Your task to perform on an android device: What's the weather going to be tomorrow? Image 0: 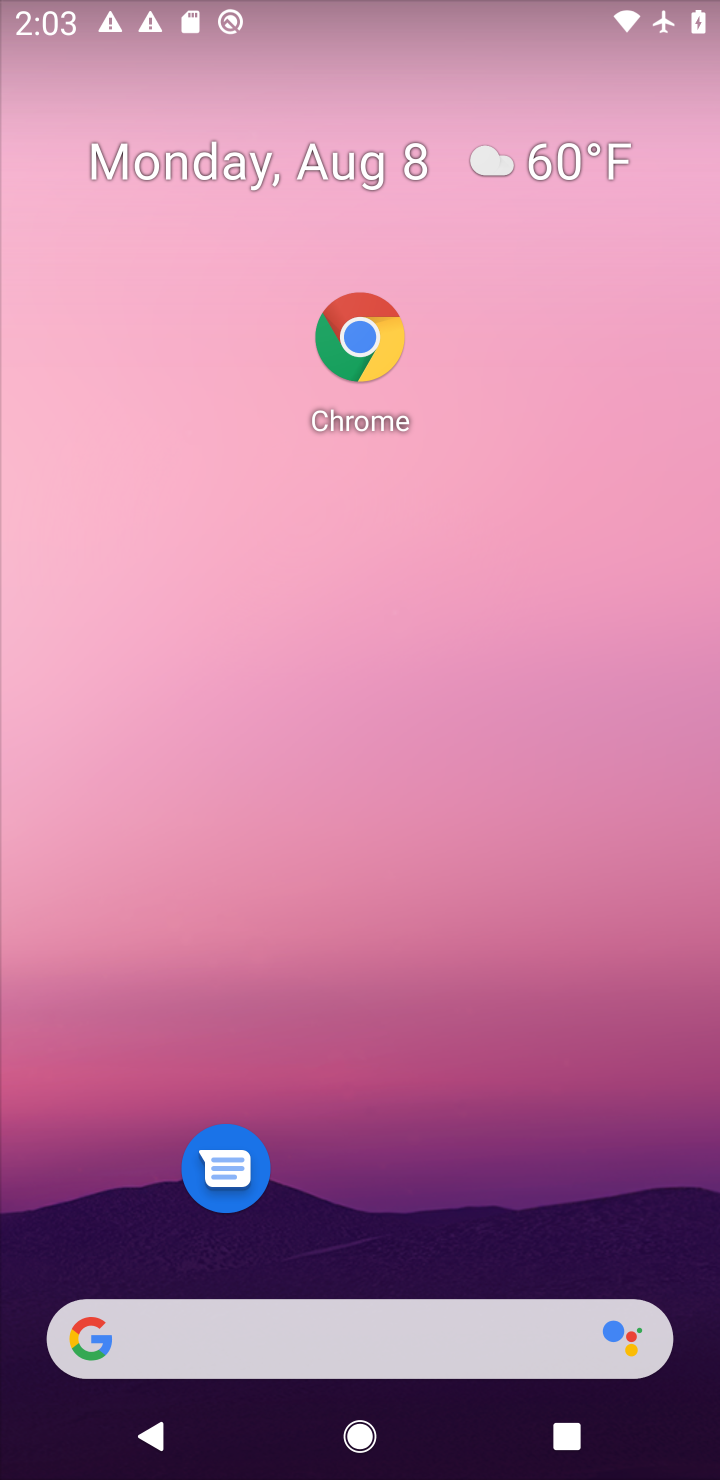
Step 0: click (330, 1323)
Your task to perform on an android device: What's the weather going to be tomorrow? Image 1: 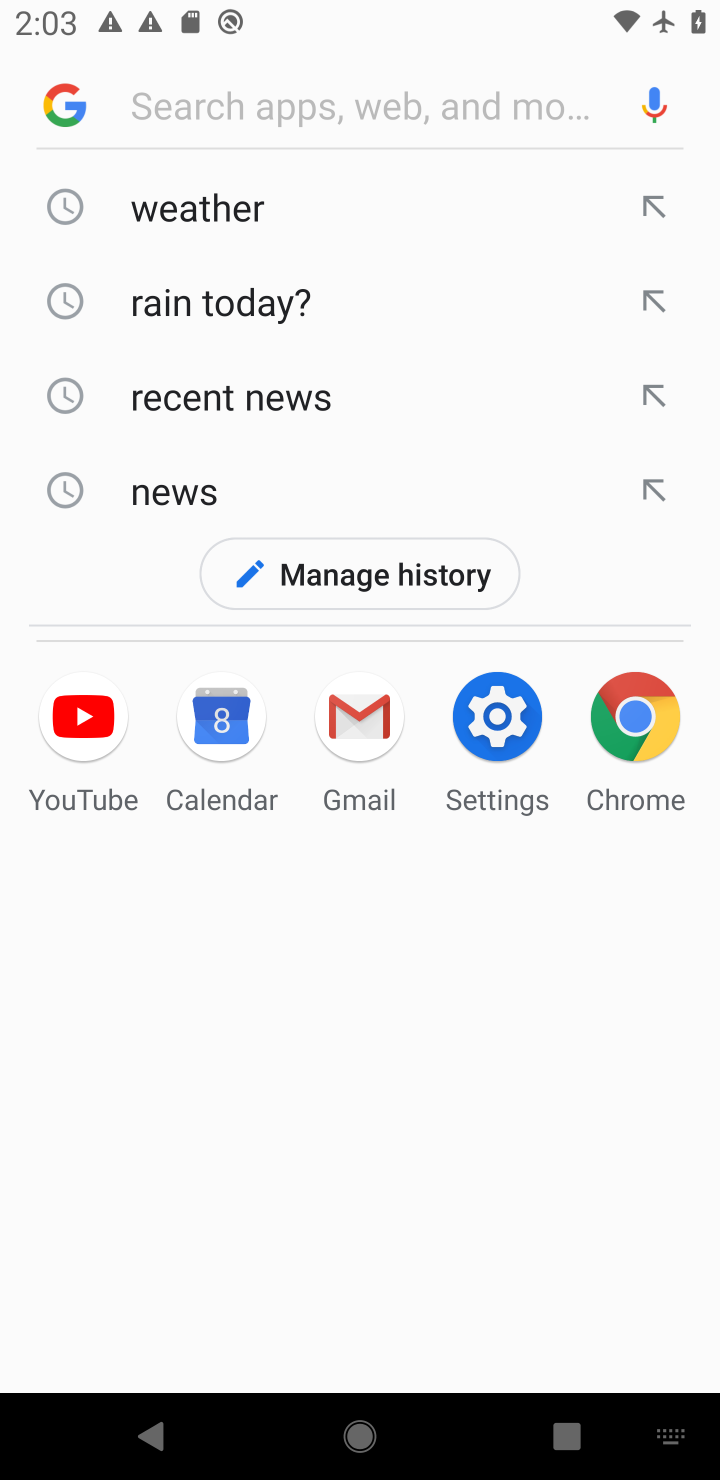
Step 1: click (346, 206)
Your task to perform on an android device: What's the weather going to be tomorrow? Image 2: 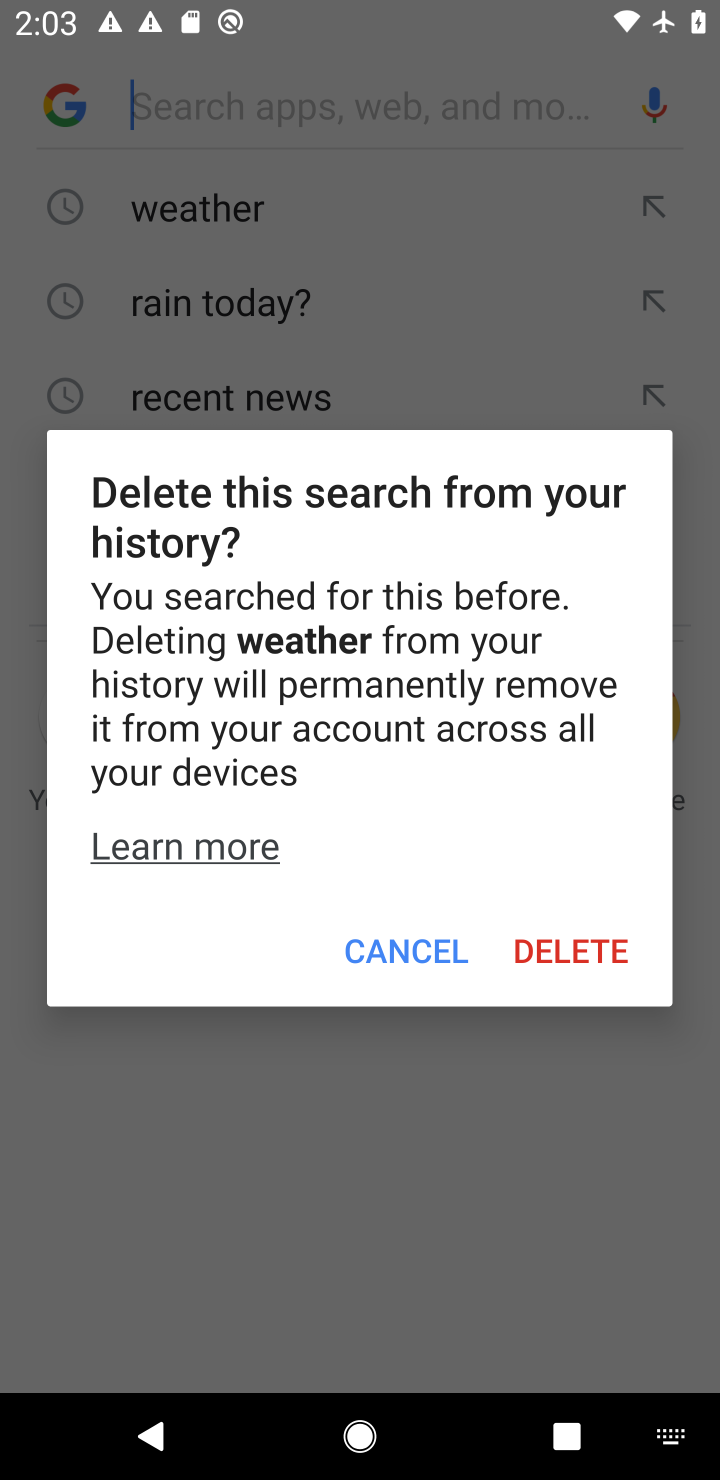
Step 2: click (573, 961)
Your task to perform on an android device: What's the weather going to be tomorrow? Image 3: 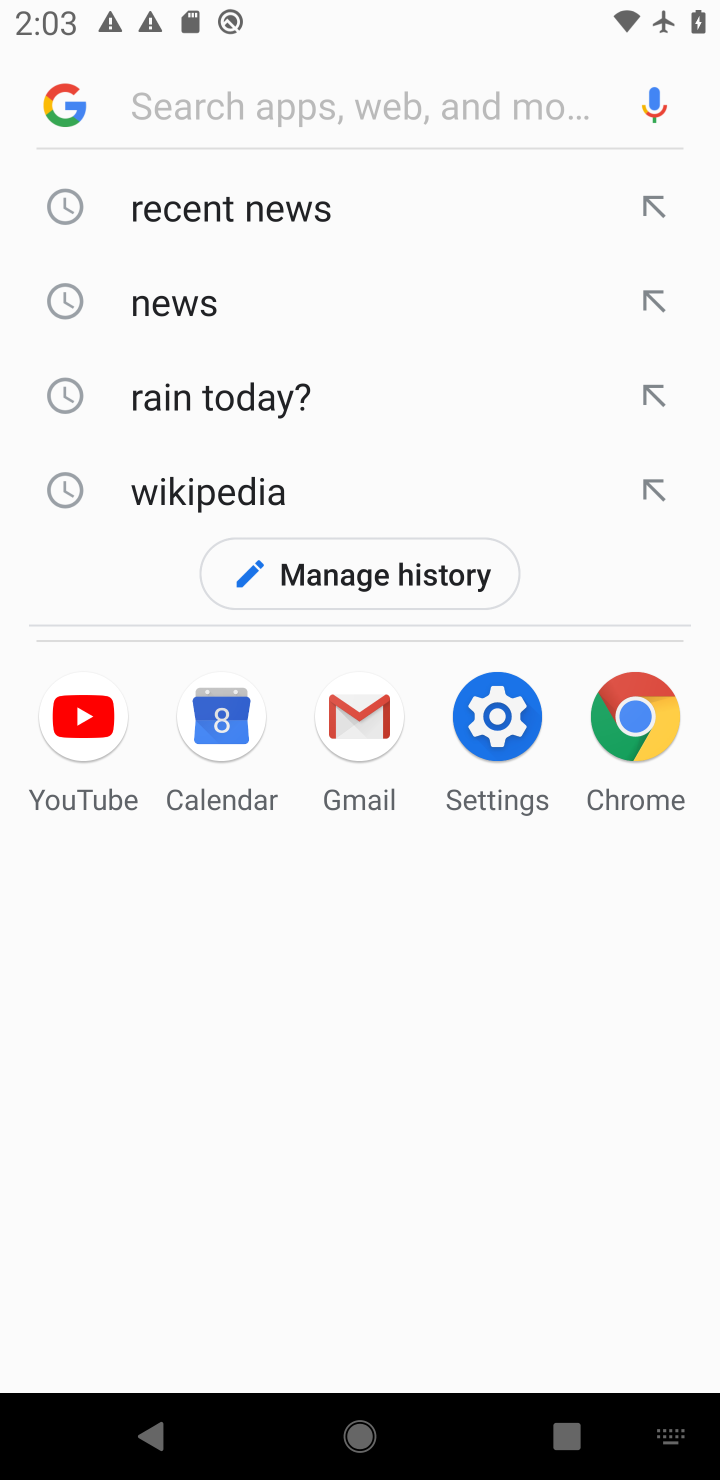
Step 3: task complete